Your task to perform on an android device: add a contact Image 0: 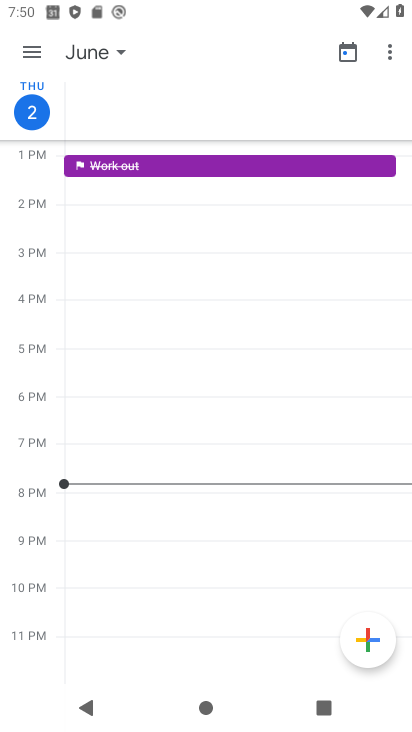
Step 0: press home button
Your task to perform on an android device: add a contact Image 1: 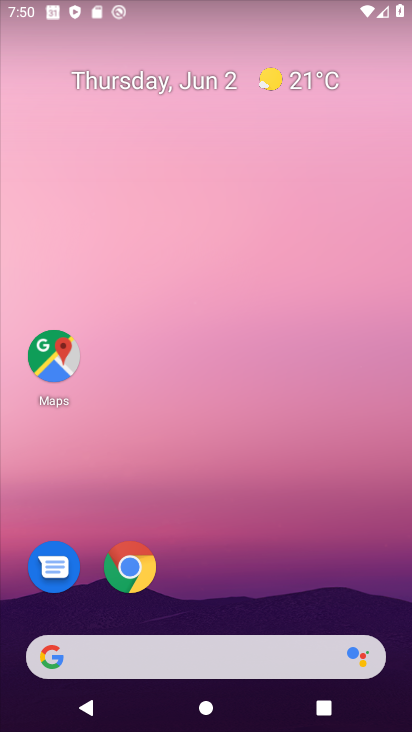
Step 1: drag from (371, 598) to (327, 108)
Your task to perform on an android device: add a contact Image 2: 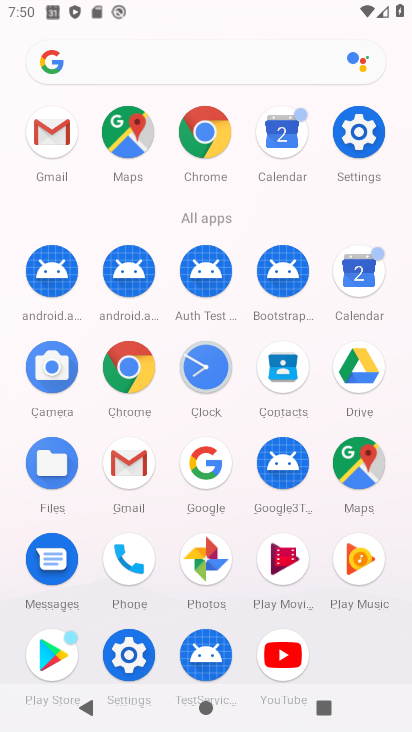
Step 2: click (283, 369)
Your task to perform on an android device: add a contact Image 3: 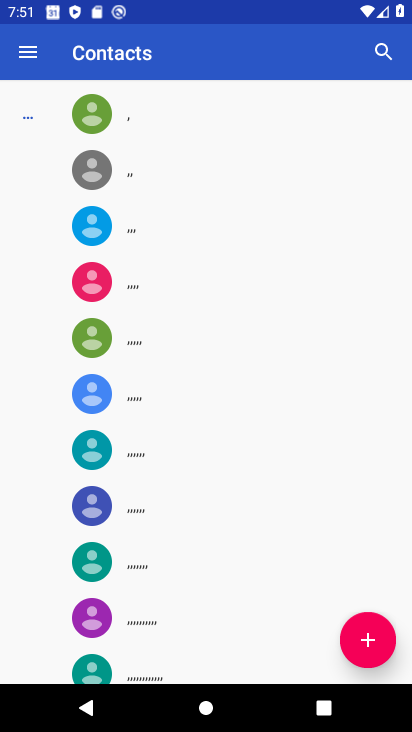
Step 3: click (368, 639)
Your task to perform on an android device: add a contact Image 4: 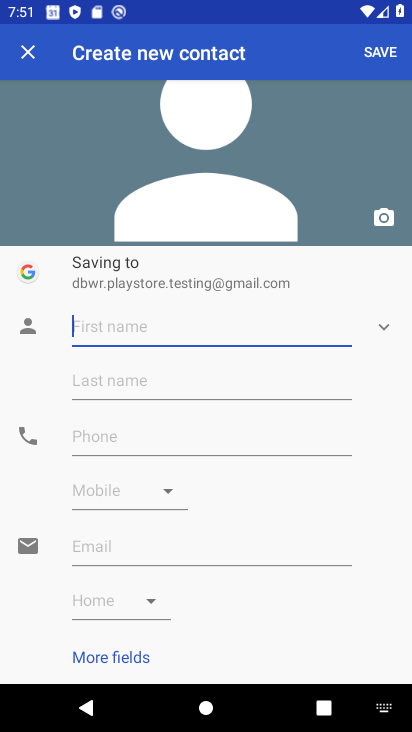
Step 4: type "oiuytrerfghj"
Your task to perform on an android device: add a contact Image 5: 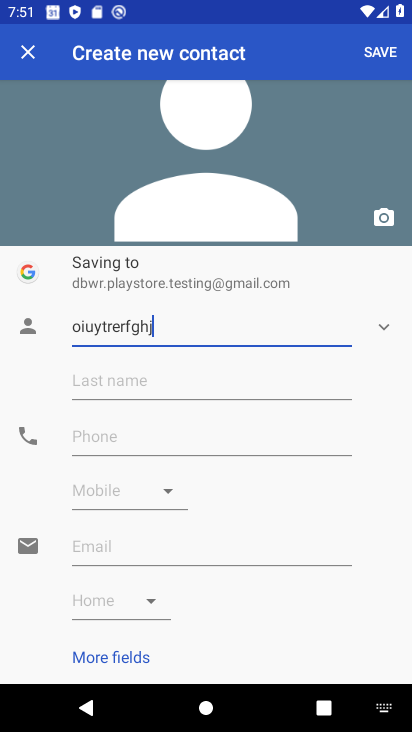
Step 5: click (152, 439)
Your task to perform on an android device: add a contact Image 6: 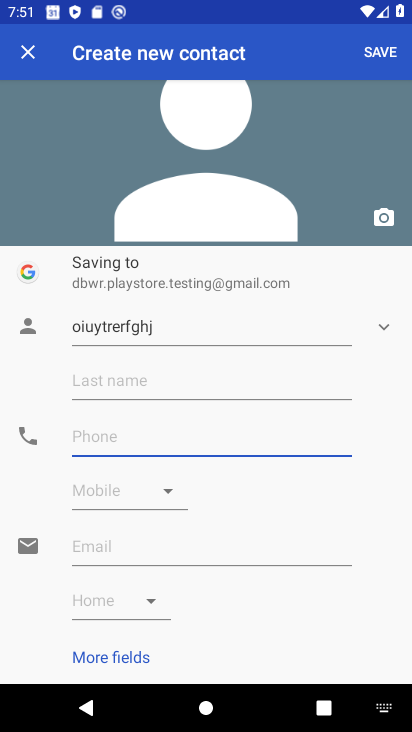
Step 6: type "234567890"
Your task to perform on an android device: add a contact Image 7: 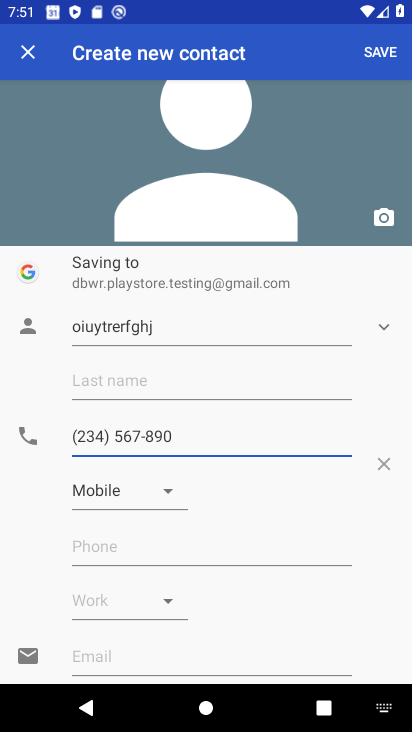
Step 7: click (375, 57)
Your task to perform on an android device: add a contact Image 8: 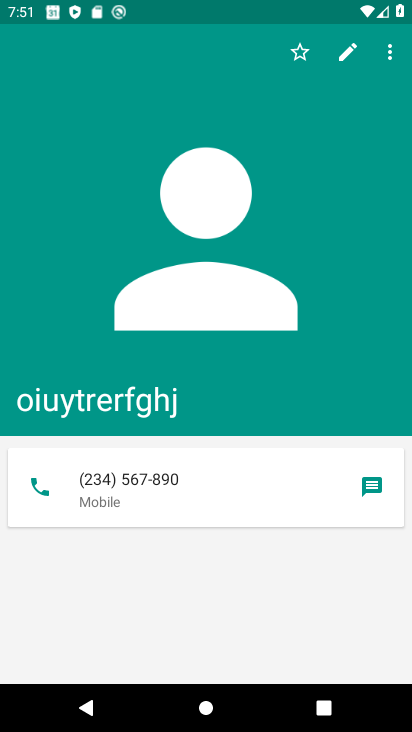
Step 8: task complete